Your task to perform on an android device: install app "WhatsApp Messenger" Image 0: 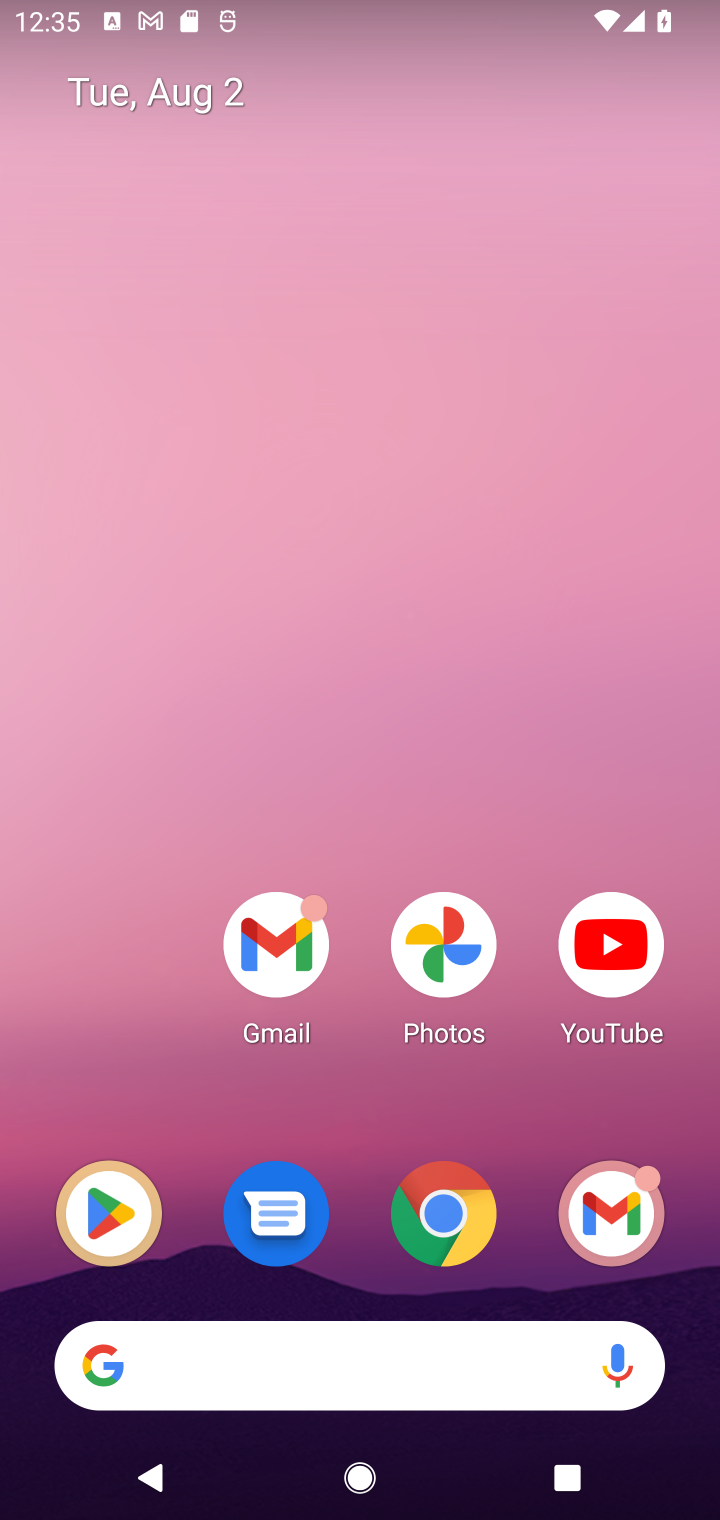
Step 0: click (101, 1229)
Your task to perform on an android device: install app "WhatsApp Messenger" Image 1: 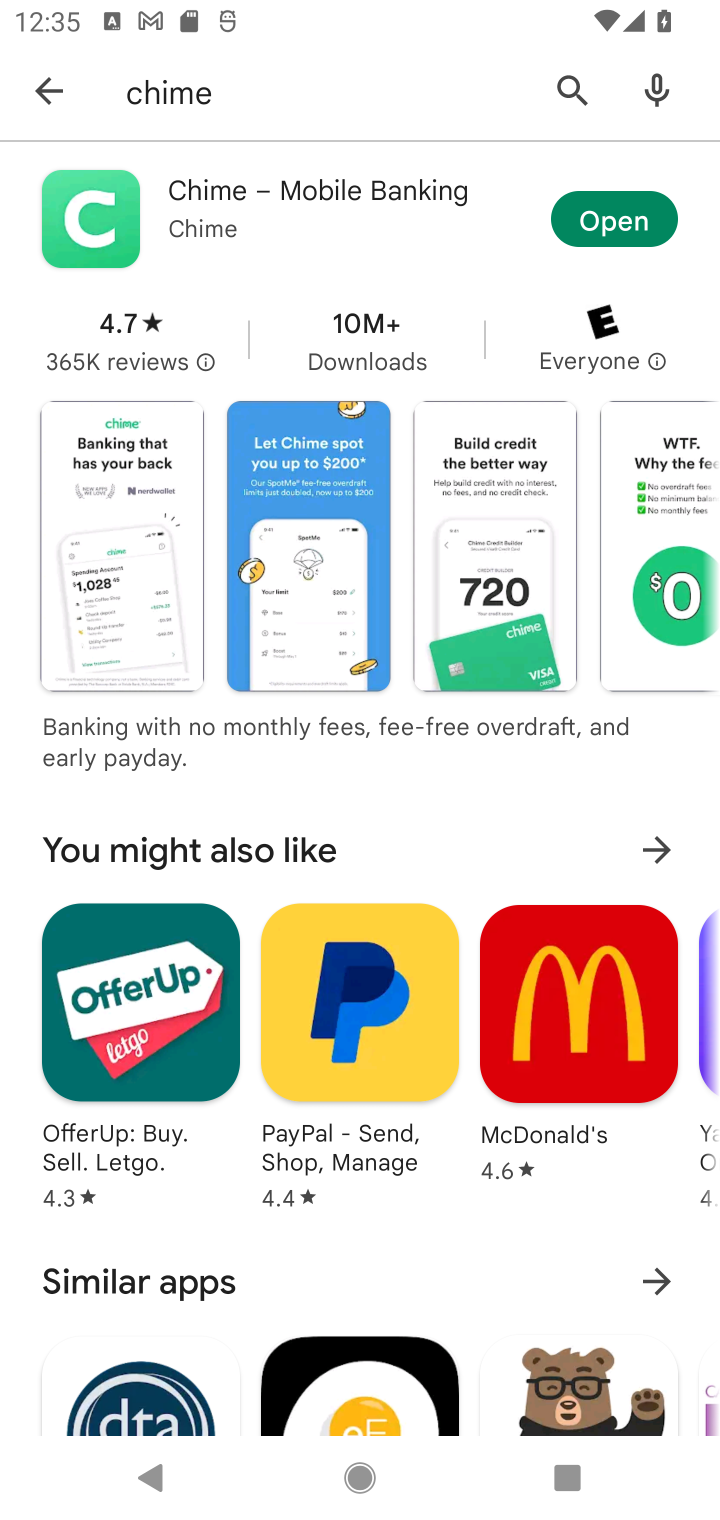
Step 1: click (47, 96)
Your task to perform on an android device: install app "WhatsApp Messenger" Image 2: 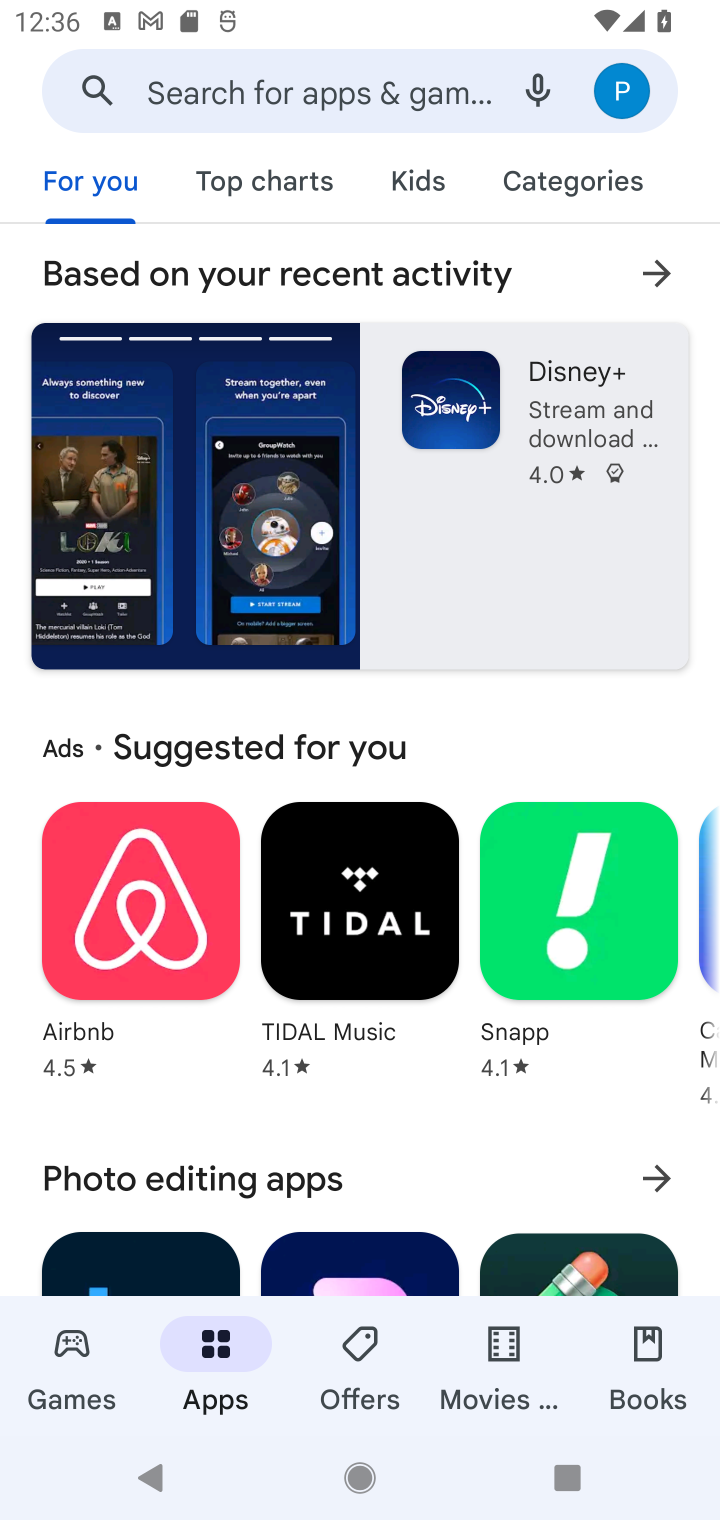
Step 2: click (256, 67)
Your task to perform on an android device: install app "WhatsApp Messenger" Image 3: 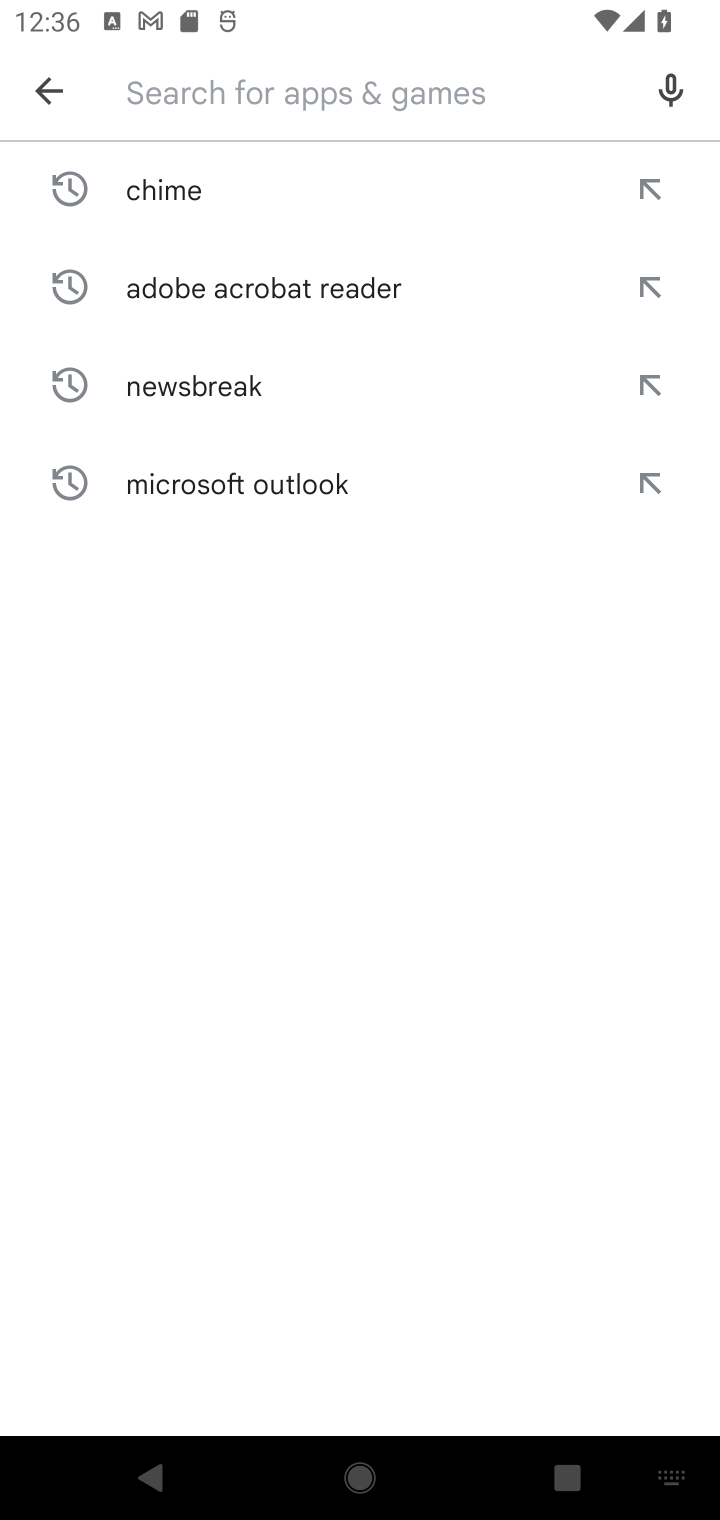
Step 3: type "WhatsApp Messenger"
Your task to perform on an android device: install app "WhatsApp Messenger" Image 4: 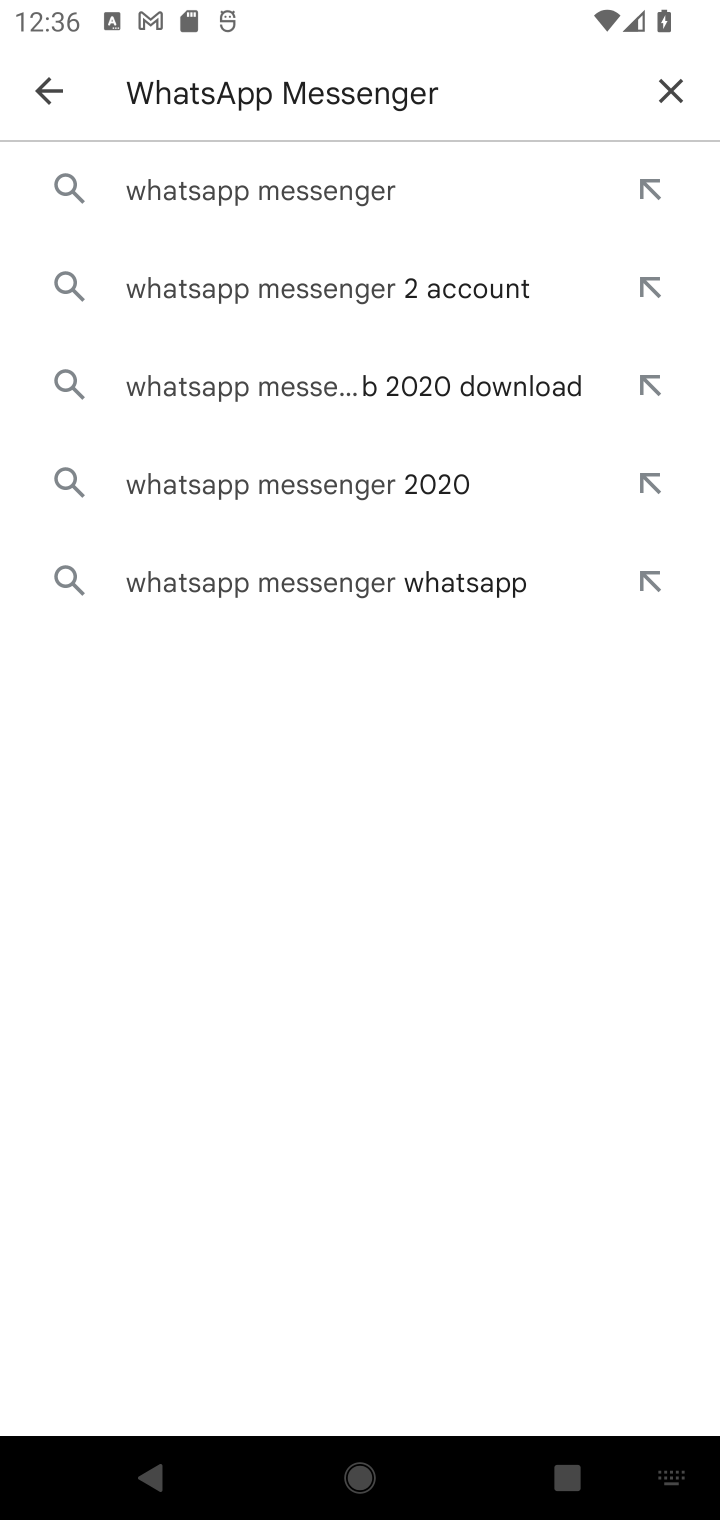
Step 4: click (308, 165)
Your task to perform on an android device: install app "WhatsApp Messenger" Image 5: 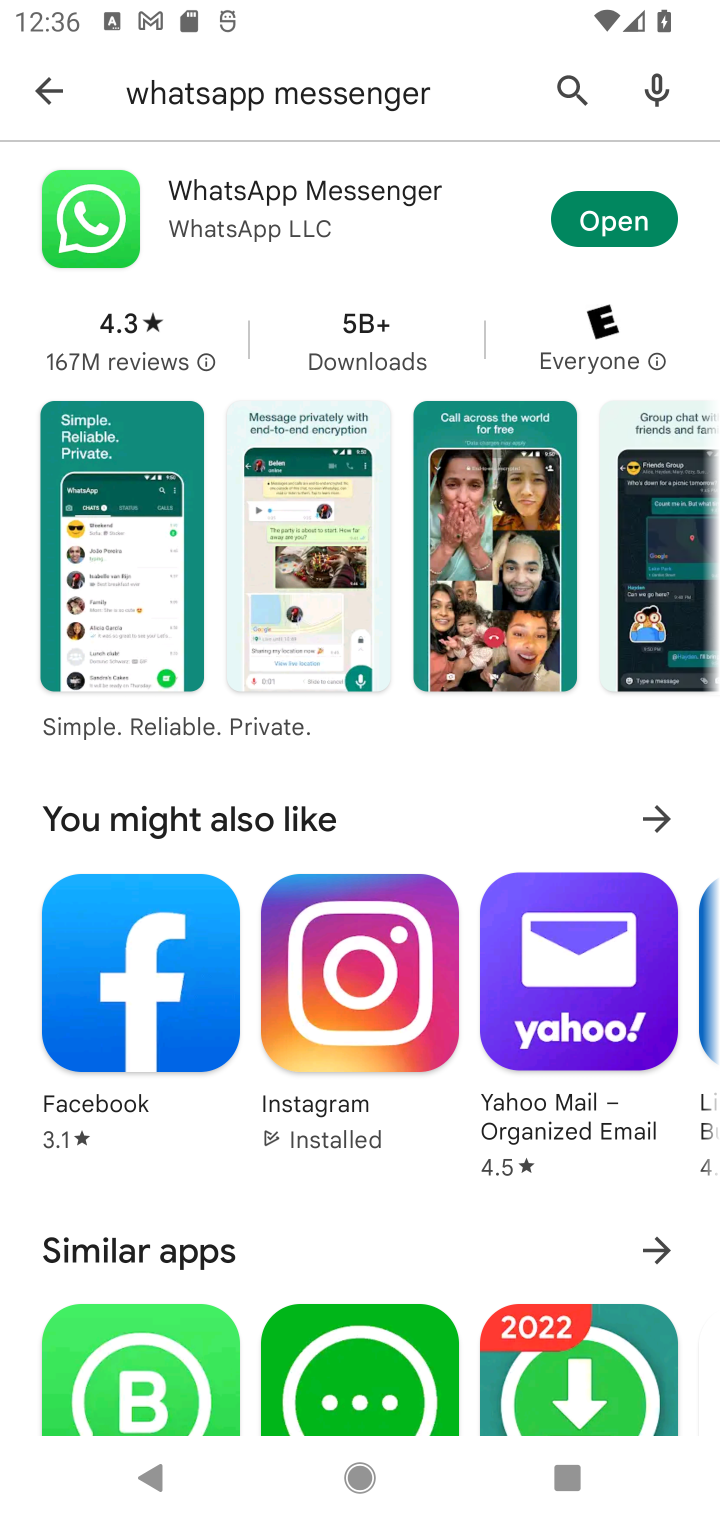
Step 5: click (618, 213)
Your task to perform on an android device: install app "WhatsApp Messenger" Image 6: 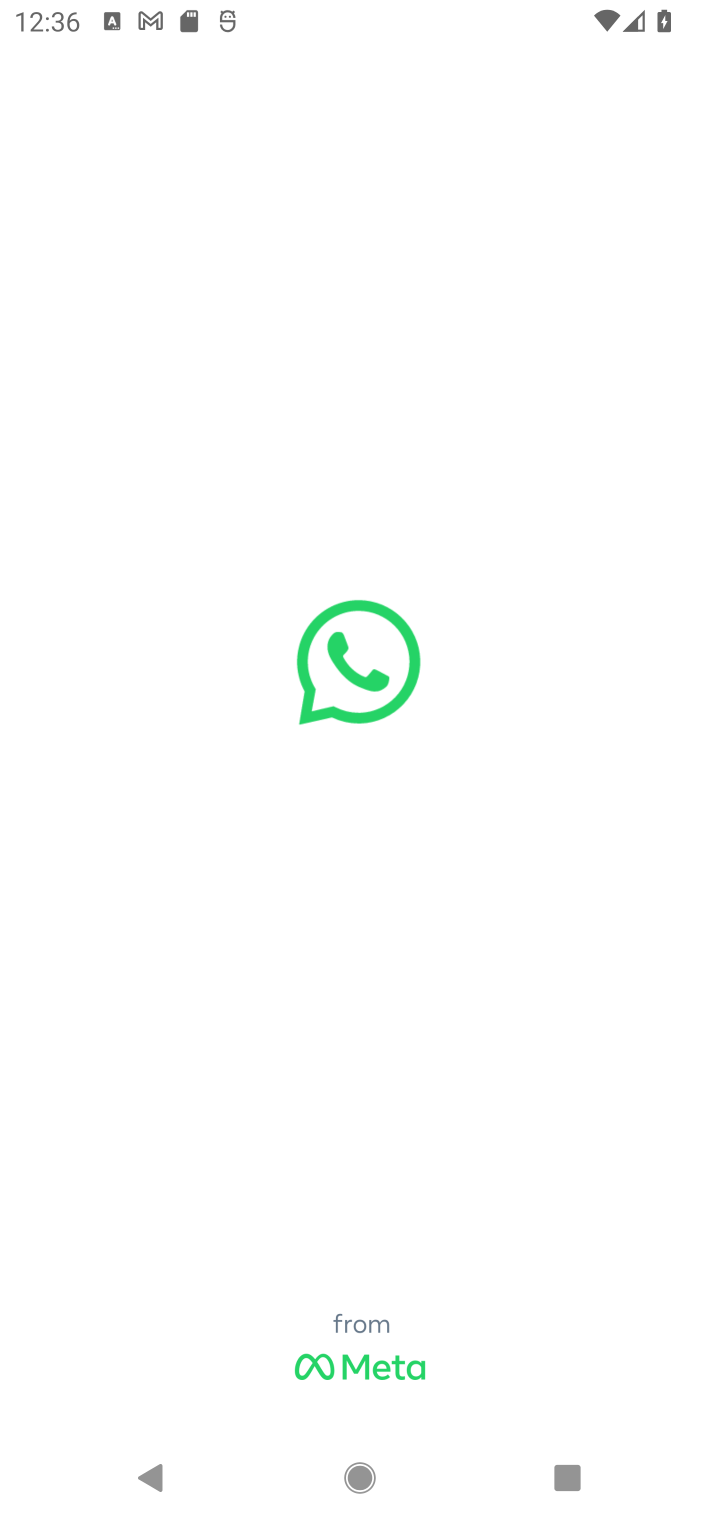
Step 6: task complete